Your task to perform on an android device: Go to Yahoo.com Image 0: 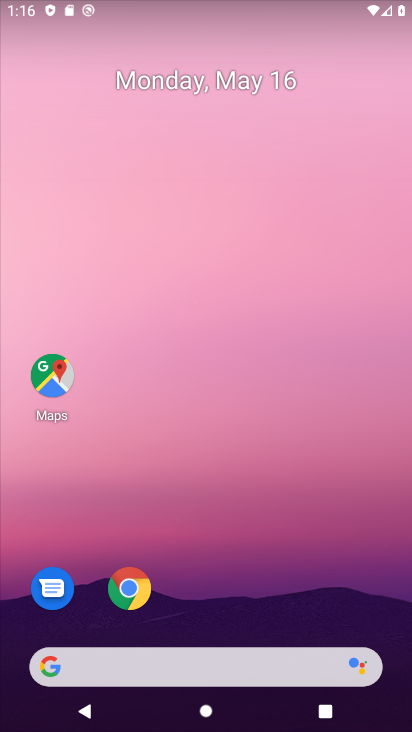
Step 0: click (131, 589)
Your task to perform on an android device: Go to Yahoo.com Image 1: 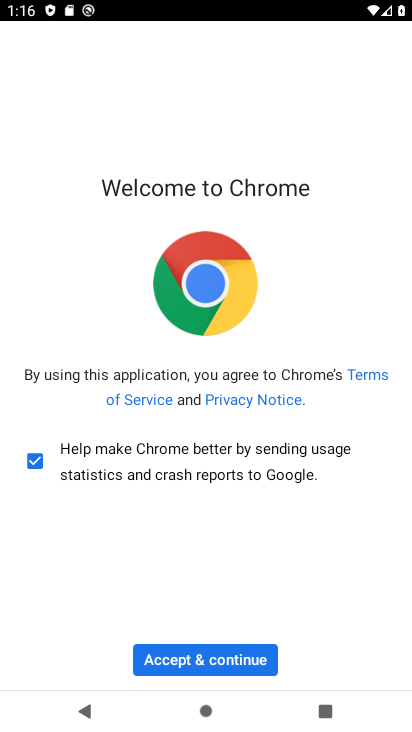
Step 1: click (234, 659)
Your task to perform on an android device: Go to Yahoo.com Image 2: 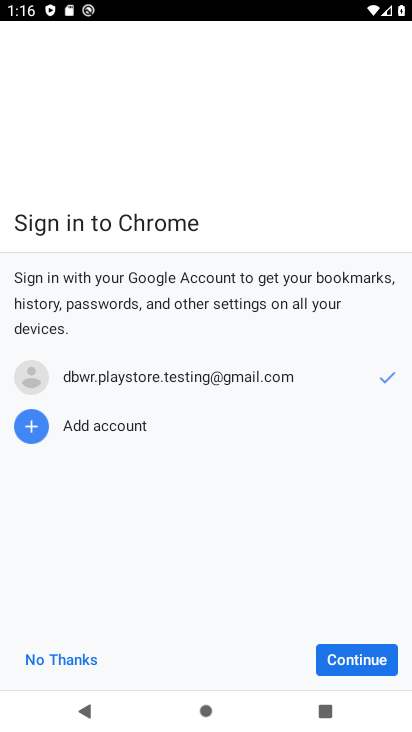
Step 2: click (340, 656)
Your task to perform on an android device: Go to Yahoo.com Image 3: 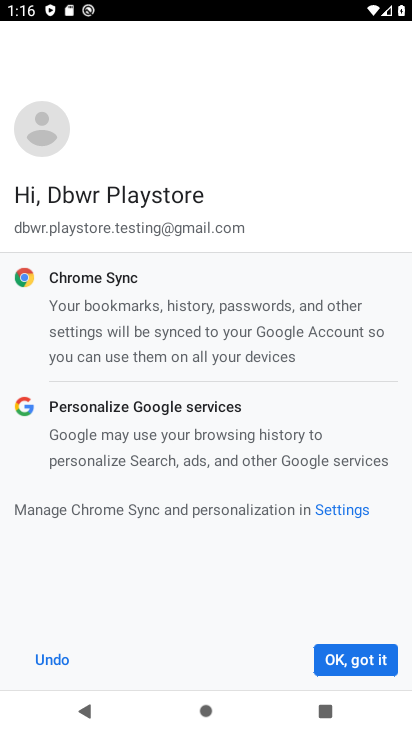
Step 3: click (352, 653)
Your task to perform on an android device: Go to Yahoo.com Image 4: 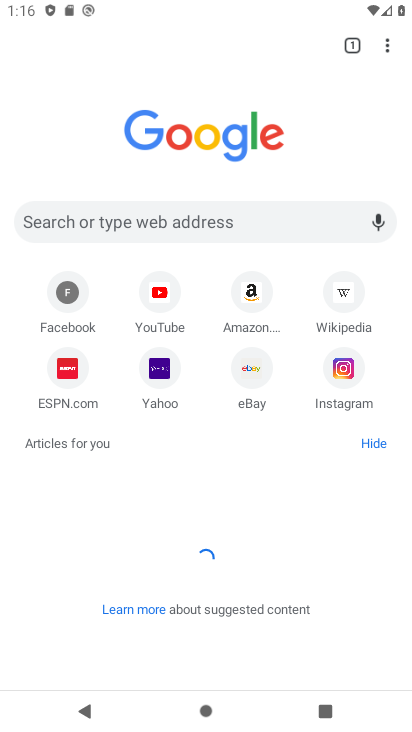
Step 4: click (183, 218)
Your task to perform on an android device: Go to Yahoo.com Image 5: 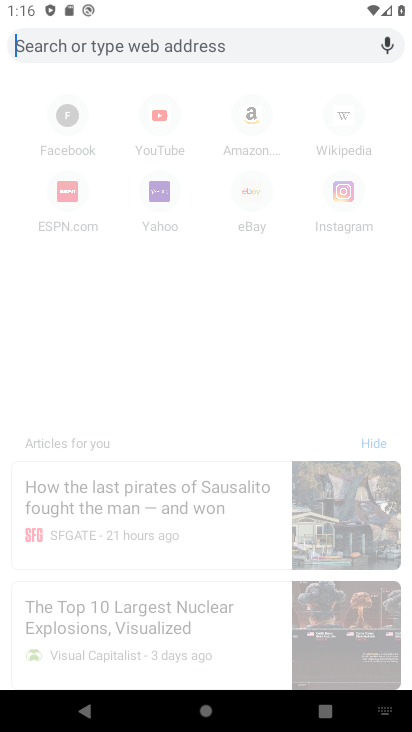
Step 5: type "Yahoo.com"
Your task to perform on an android device: Go to Yahoo.com Image 6: 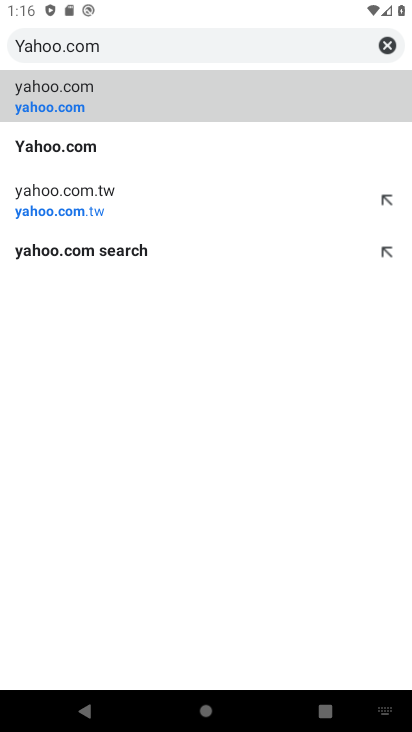
Step 6: click (68, 146)
Your task to perform on an android device: Go to Yahoo.com Image 7: 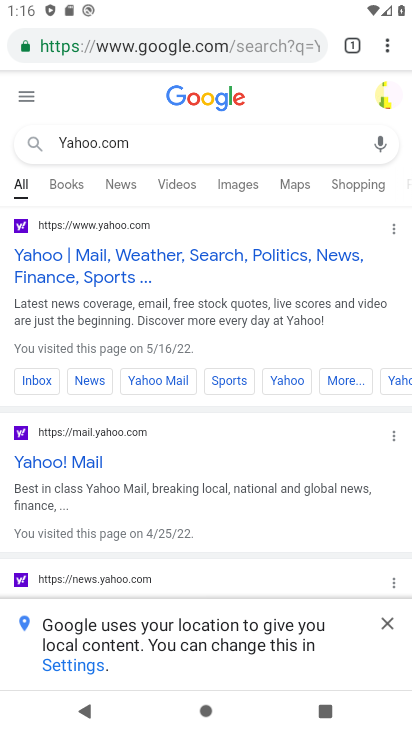
Step 7: click (172, 267)
Your task to perform on an android device: Go to Yahoo.com Image 8: 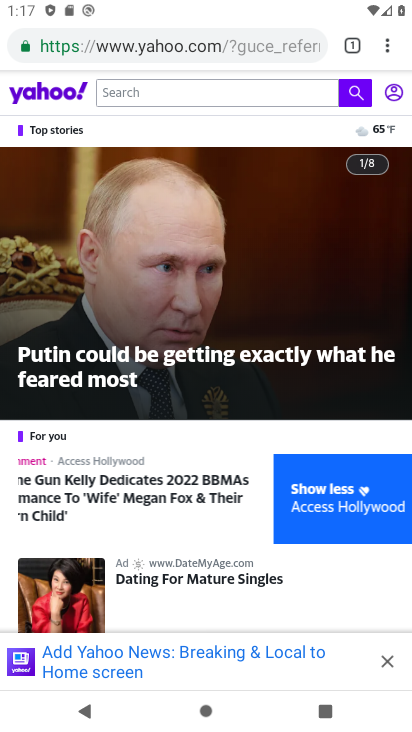
Step 8: task complete